Your task to perform on an android device: Go to CNN.com Image 0: 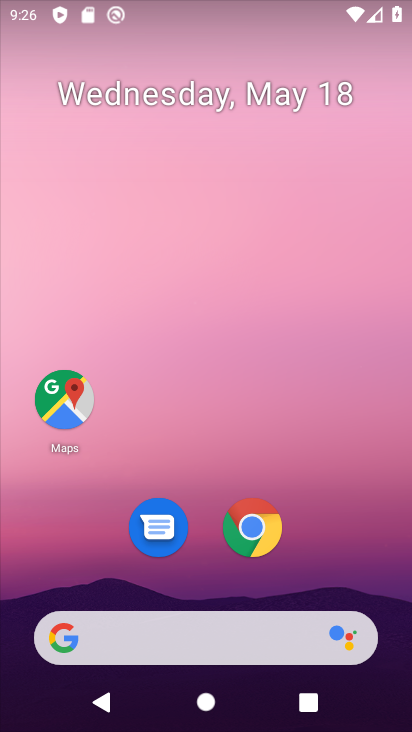
Step 0: click (250, 528)
Your task to perform on an android device: Go to CNN.com Image 1: 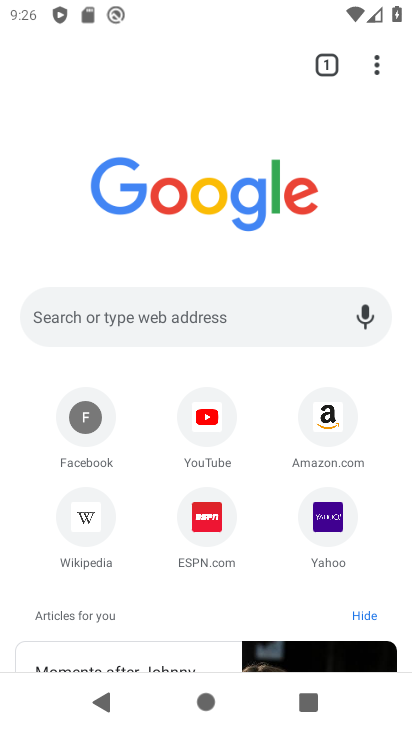
Step 1: click (282, 312)
Your task to perform on an android device: Go to CNN.com Image 2: 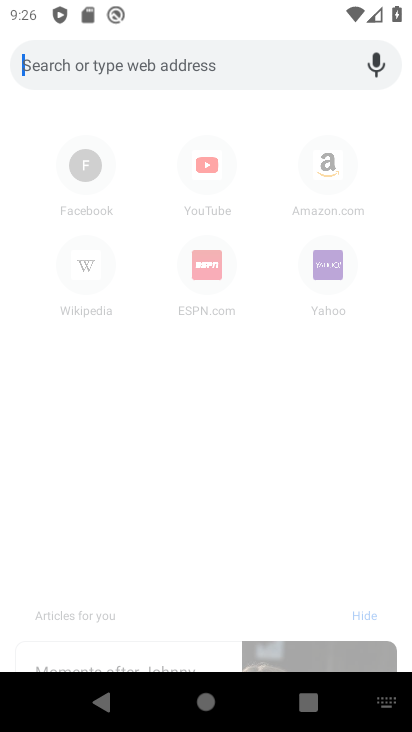
Step 2: type "CNN.com"
Your task to perform on an android device: Go to CNN.com Image 3: 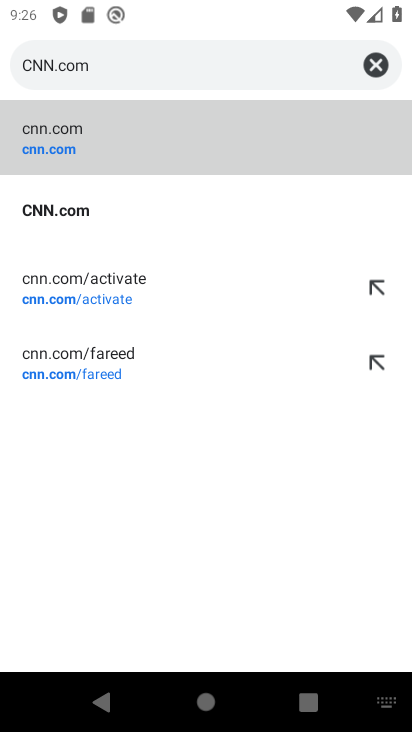
Step 3: click (87, 149)
Your task to perform on an android device: Go to CNN.com Image 4: 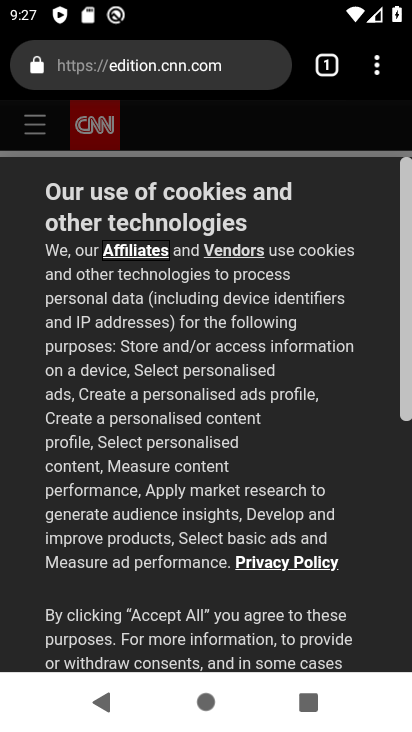
Step 4: task complete